Your task to perform on an android device: What is the recent news? Image 0: 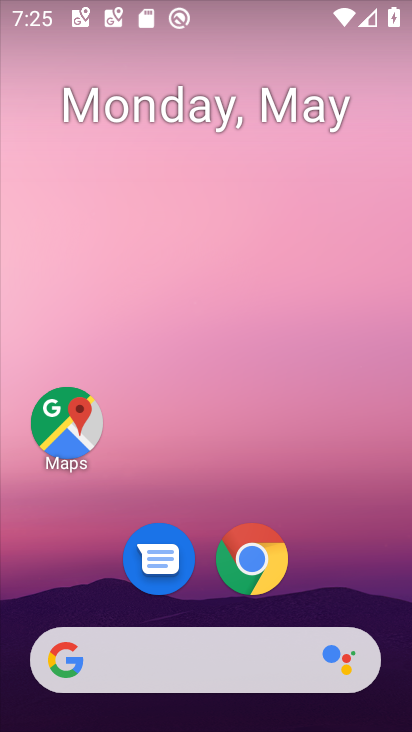
Step 0: drag from (399, 634) to (380, 455)
Your task to perform on an android device: What is the recent news? Image 1: 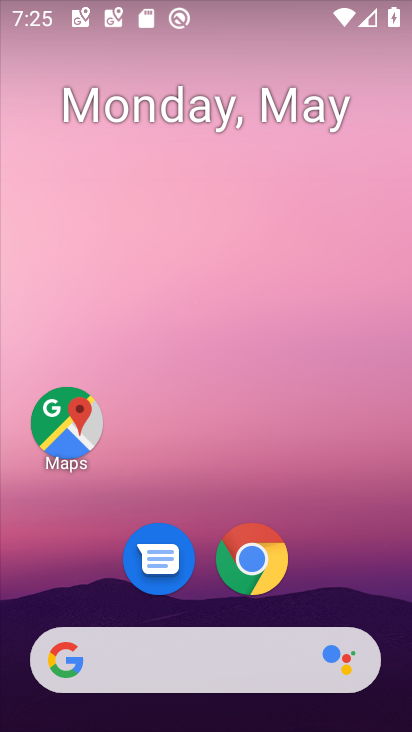
Step 1: drag from (394, 621) to (281, 56)
Your task to perform on an android device: What is the recent news? Image 2: 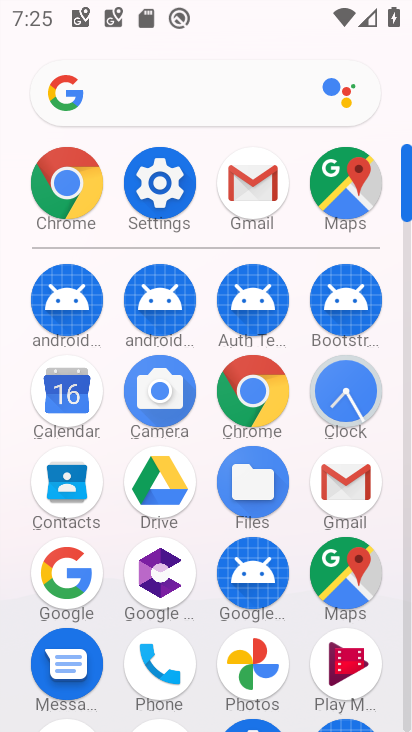
Step 2: click (259, 397)
Your task to perform on an android device: What is the recent news? Image 3: 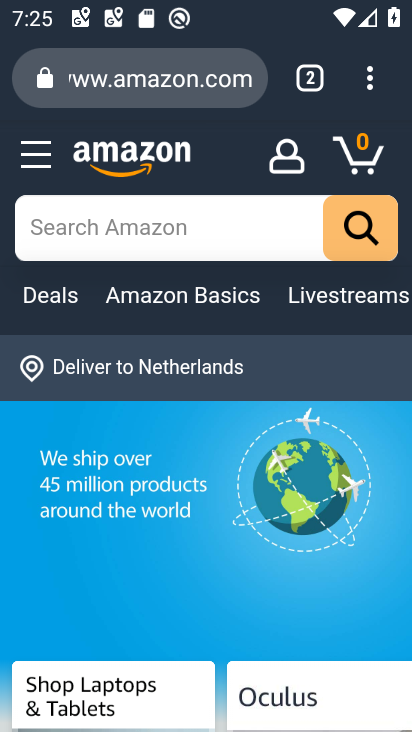
Step 3: press back button
Your task to perform on an android device: What is the recent news? Image 4: 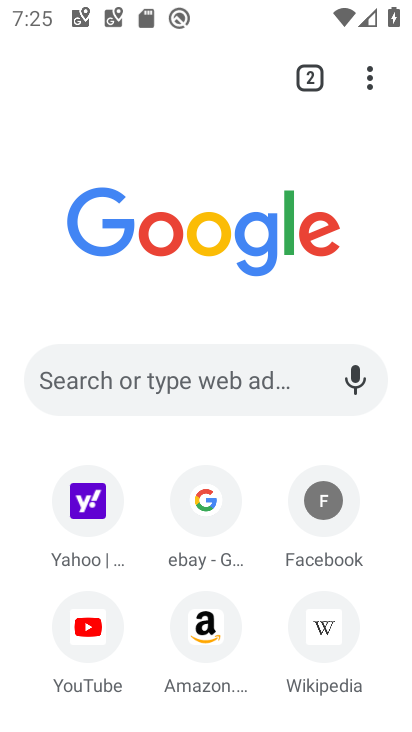
Step 4: drag from (174, 612) to (145, 108)
Your task to perform on an android device: What is the recent news? Image 5: 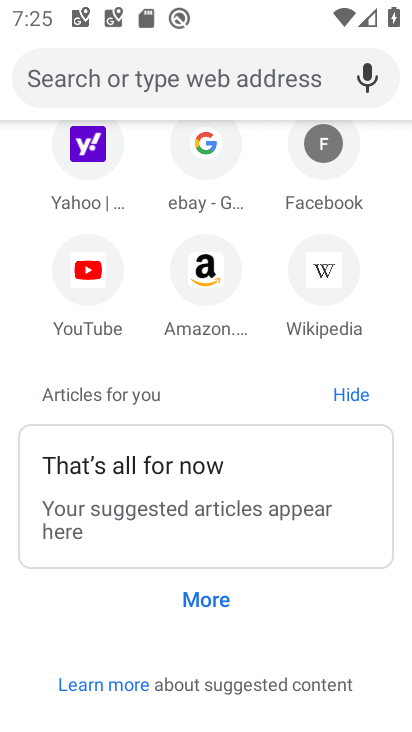
Step 5: click (194, 592)
Your task to perform on an android device: What is the recent news? Image 6: 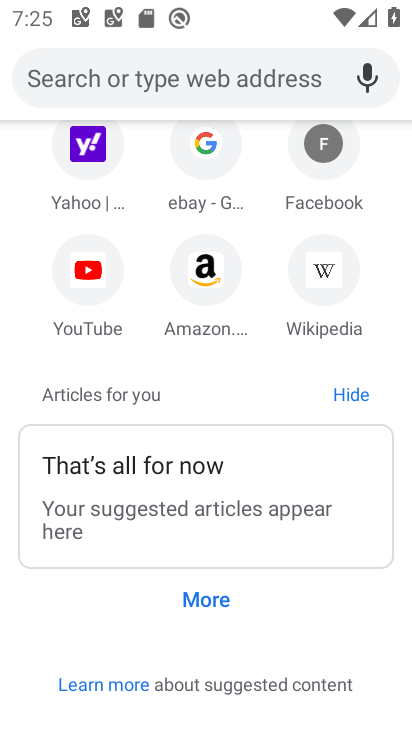
Step 6: drag from (94, 675) to (166, 281)
Your task to perform on an android device: What is the recent news? Image 7: 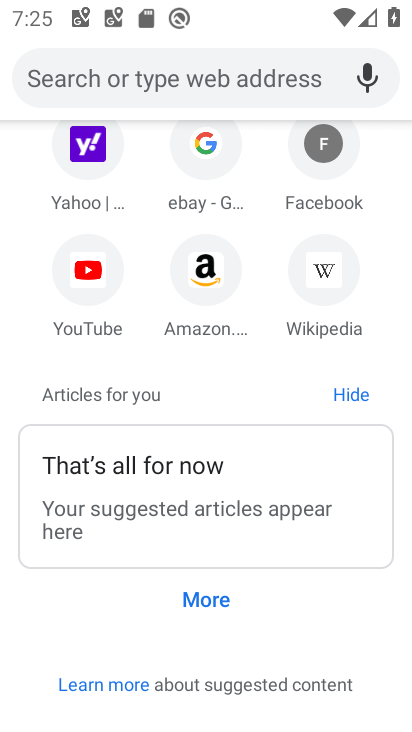
Step 7: click (194, 597)
Your task to perform on an android device: What is the recent news? Image 8: 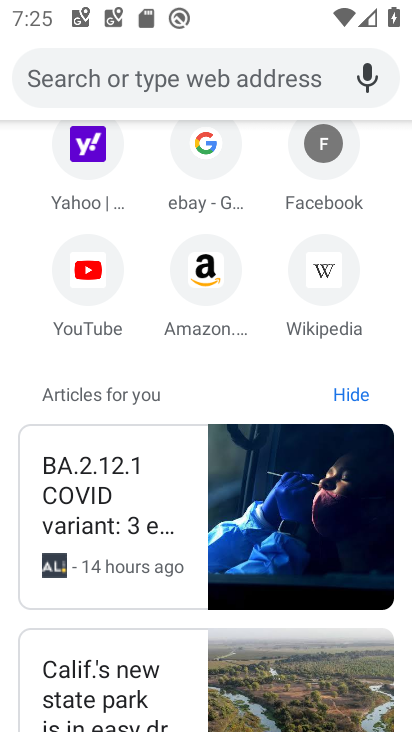
Step 8: drag from (86, 651) to (124, 502)
Your task to perform on an android device: What is the recent news? Image 9: 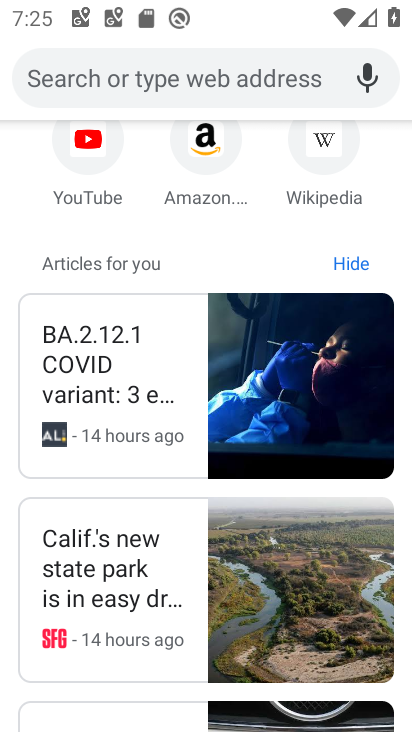
Step 9: click (152, 348)
Your task to perform on an android device: What is the recent news? Image 10: 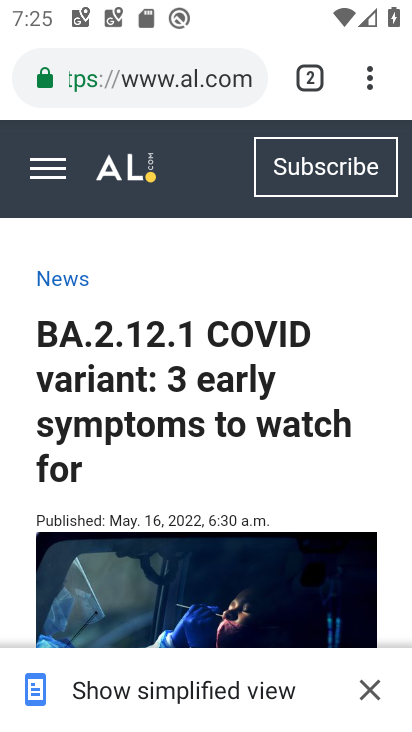
Step 10: task complete